Your task to perform on an android device: Open settings on Google Maps Image 0: 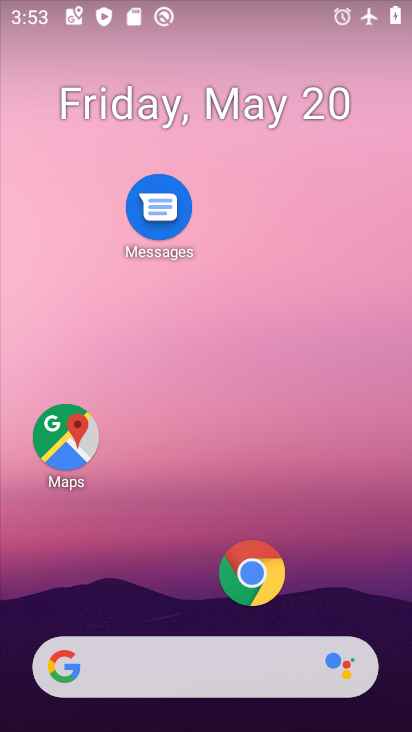
Step 0: drag from (208, 619) to (142, 48)
Your task to perform on an android device: Open settings on Google Maps Image 1: 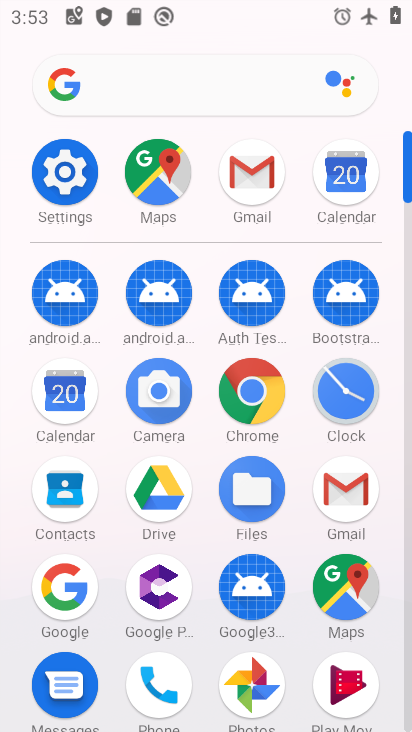
Step 1: click (356, 578)
Your task to perform on an android device: Open settings on Google Maps Image 2: 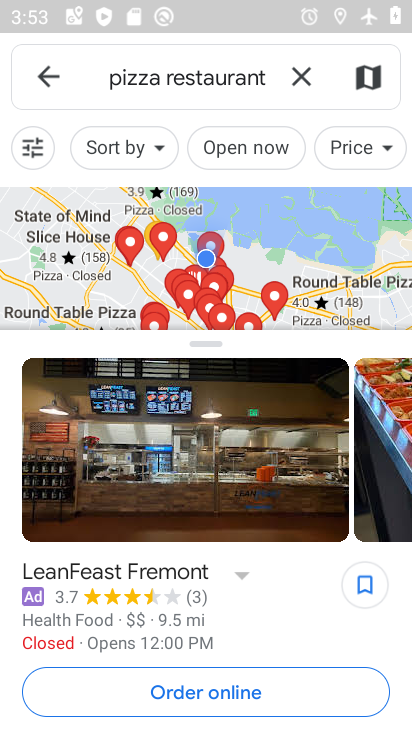
Step 2: click (56, 71)
Your task to perform on an android device: Open settings on Google Maps Image 3: 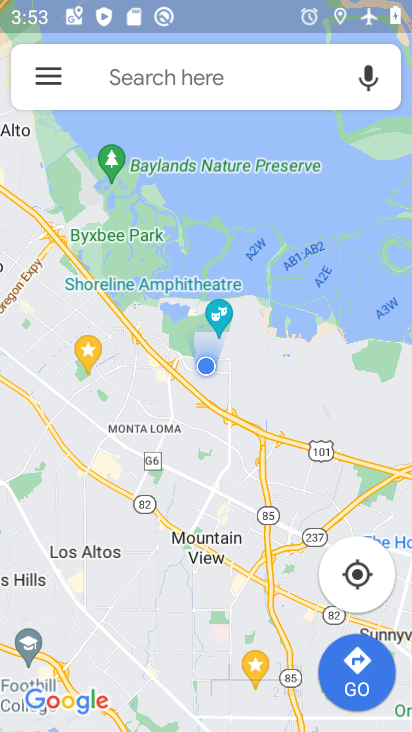
Step 3: click (52, 81)
Your task to perform on an android device: Open settings on Google Maps Image 4: 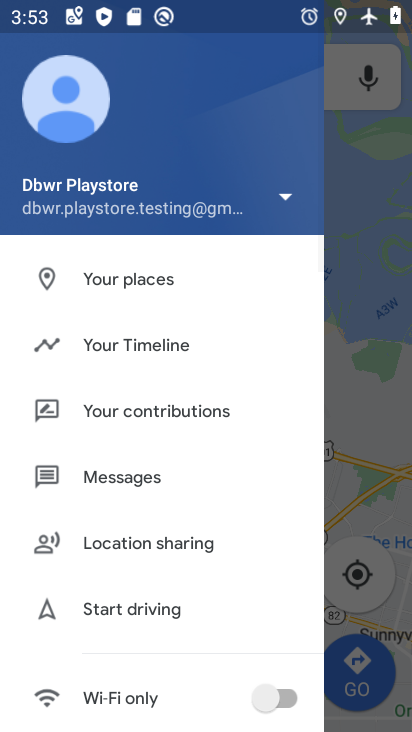
Step 4: drag from (70, 528) to (13, 116)
Your task to perform on an android device: Open settings on Google Maps Image 5: 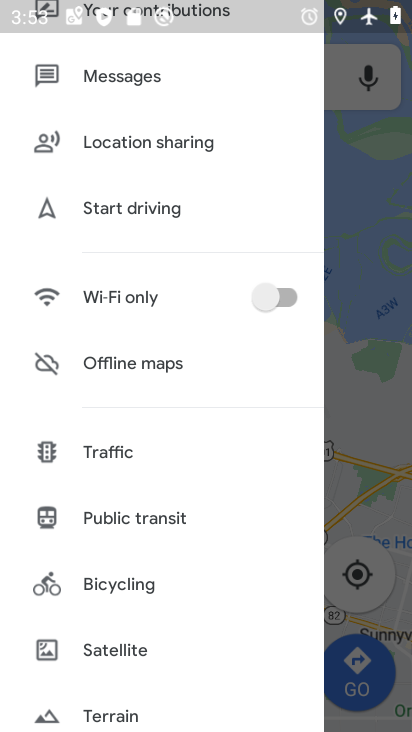
Step 5: drag from (109, 623) to (58, 148)
Your task to perform on an android device: Open settings on Google Maps Image 6: 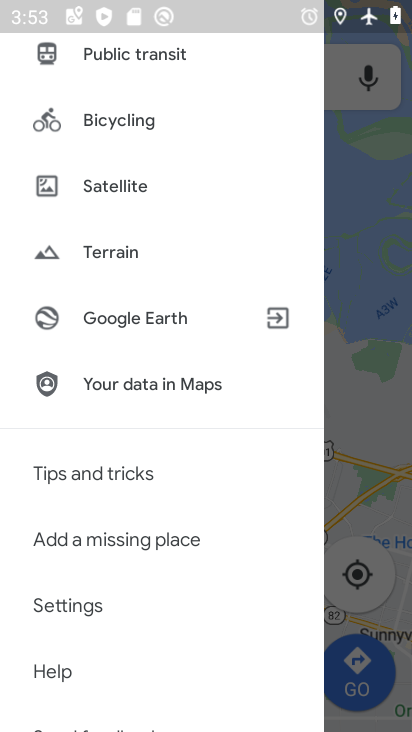
Step 6: click (113, 598)
Your task to perform on an android device: Open settings on Google Maps Image 7: 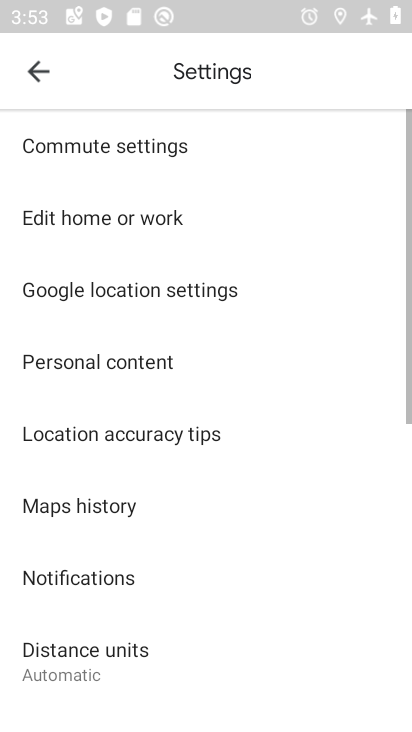
Step 7: task complete